Your task to perform on an android device: change timer sound Image 0: 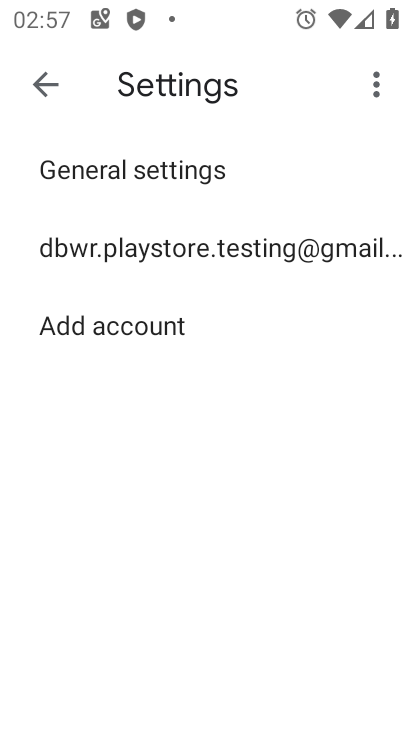
Step 0: press home button
Your task to perform on an android device: change timer sound Image 1: 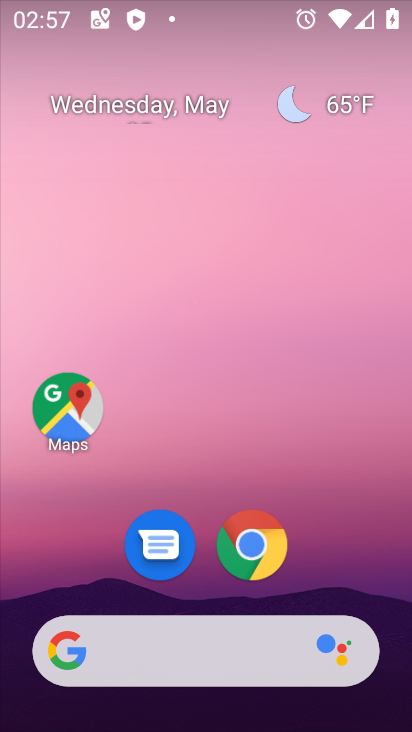
Step 1: drag from (347, 435) to (235, 3)
Your task to perform on an android device: change timer sound Image 2: 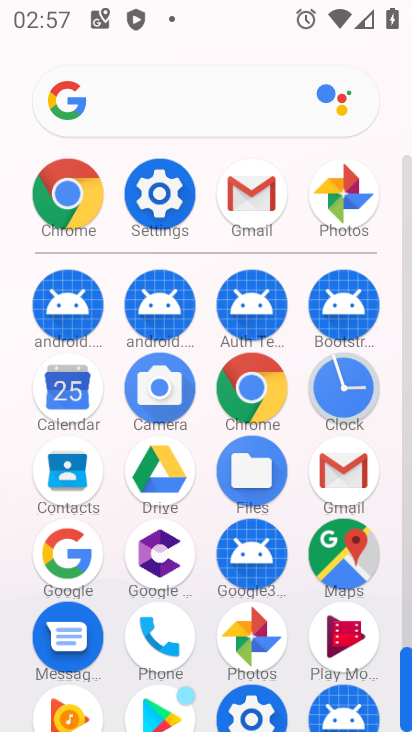
Step 2: click (153, 211)
Your task to perform on an android device: change timer sound Image 3: 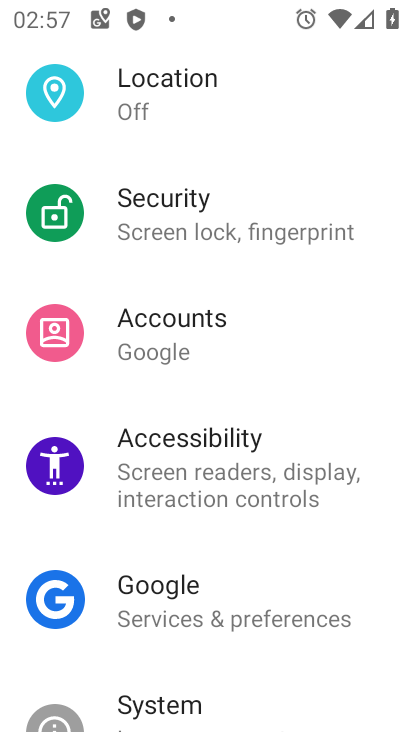
Step 3: drag from (218, 494) to (212, 51)
Your task to perform on an android device: change timer sound Image 4: 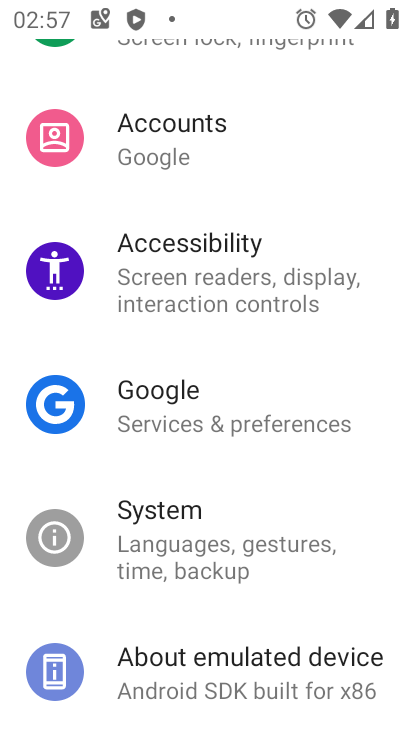
Step 4: press home button
Your task to perform on an android device: change timer sound Image 5: 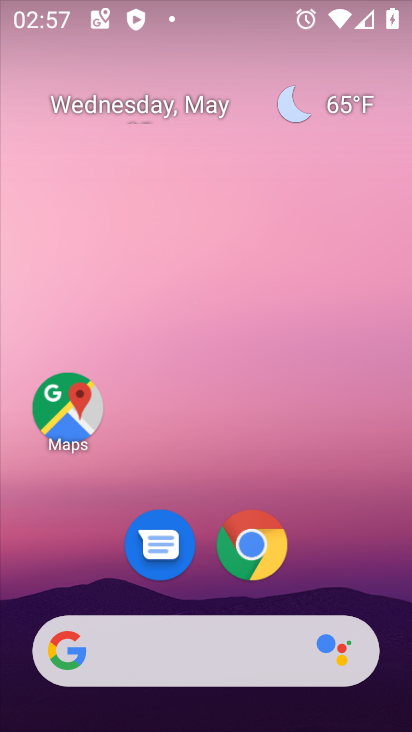
Step 5: drag from (313, 480) to (221, 12)
Your task to perform on an android device: change timer sound Image 6: 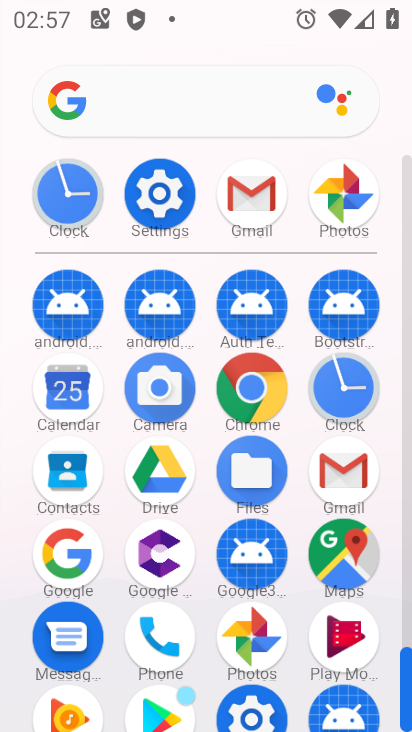
Step 6: click (343, 368)
Your task to perform on an android device: change timer sound Image 7: 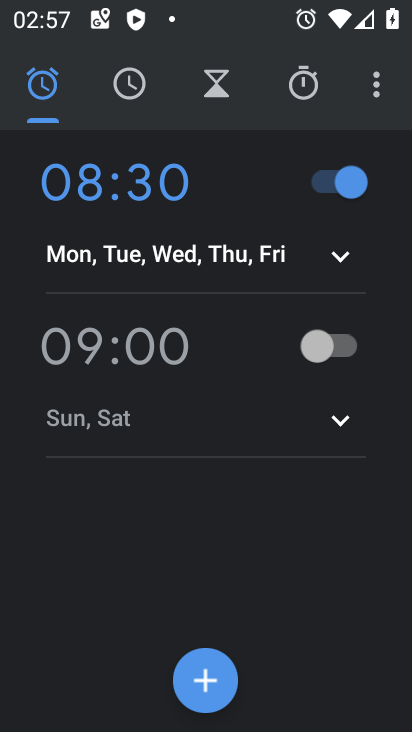
Step 7: click (373, 96)
Your task to perform on an android device: change timer sound Image 8: 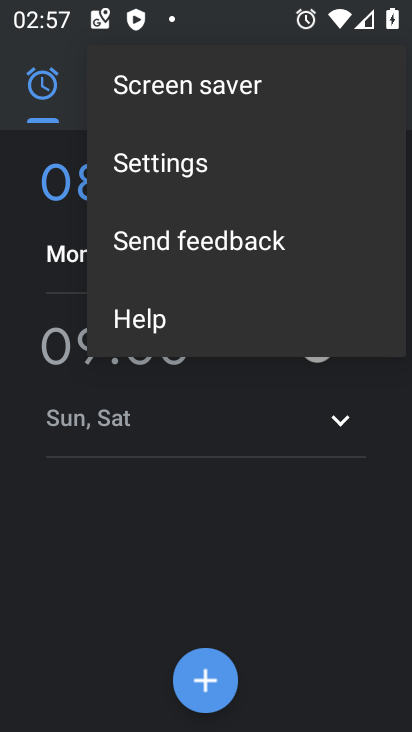
Step 8: click (212, 146)
Your task to perform on an android device: change timer sound Image 9: 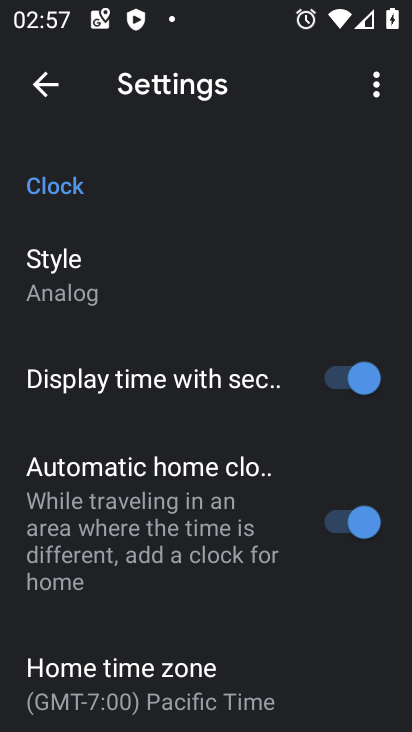
Step 9: drag from (225, 661) to (183, 64)
Your task to perform on an android device: change timer sound Image 10: 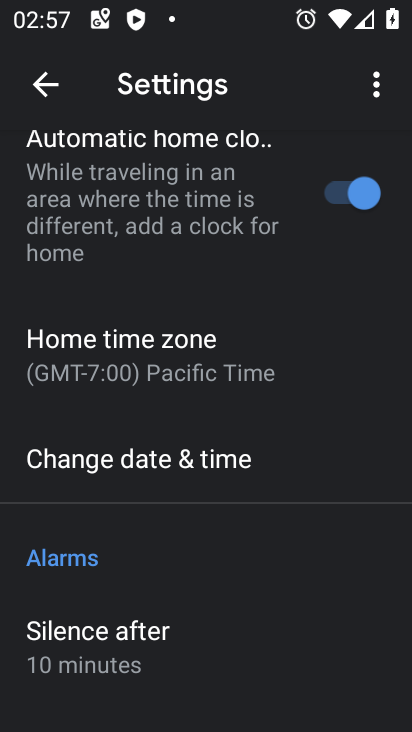
Step 10: drag from (252, 628) to (271, 64)
Your task to perform on an android device: change timer sound Image 11: 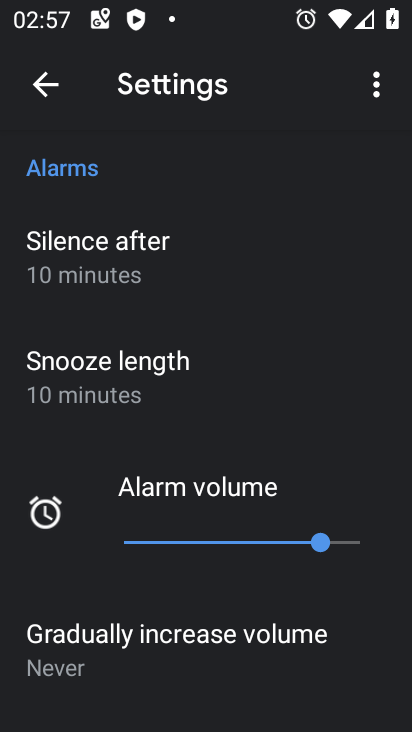
Step 11: drag from (251, 637) to (242, 149)
Your task to perform on an android device: change timer sound Image 12: 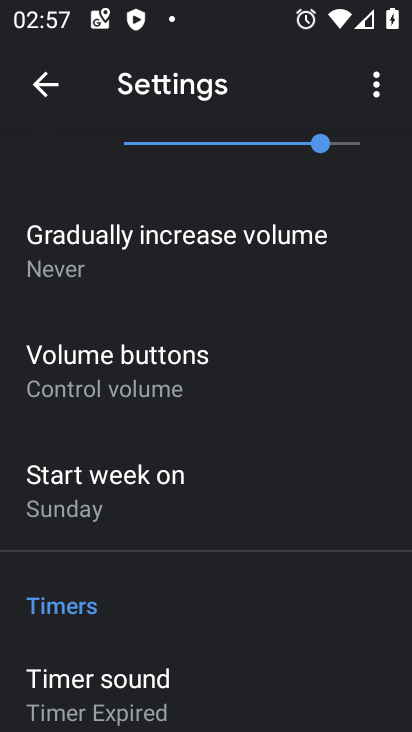
Step 12: click (184, 691)
Your task to perform on an android device: change timer sound Image 13: 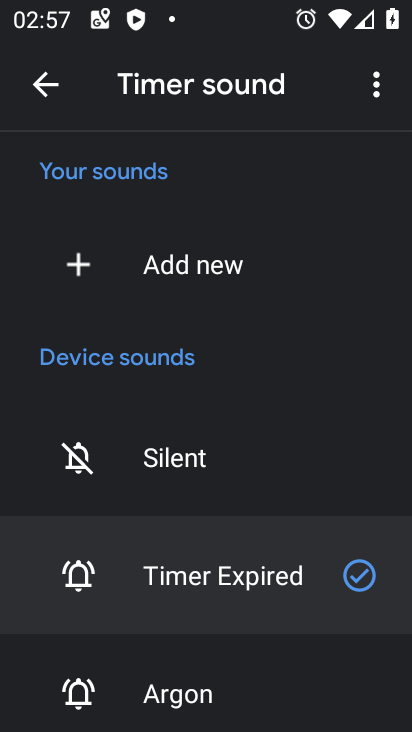
Step 13: drag from (272, 627) to (285, 203)
Your task to perform on an android device: change timer sound Image 14: 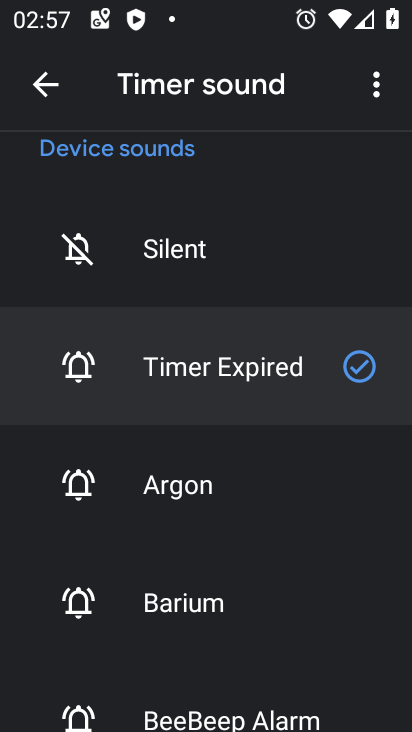
Step 14: click (244, 540)
Your task to perform on an android device: change timer sound Image 15: 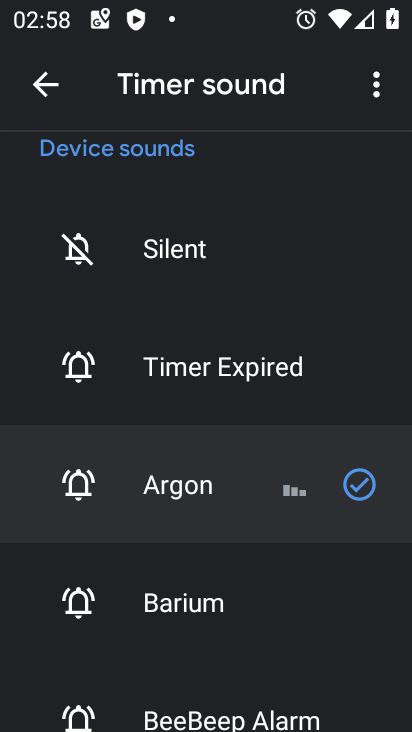
Step 15: task complete